Your task to perform on an android device: Open calendar and show me the third week of next month Image 0: 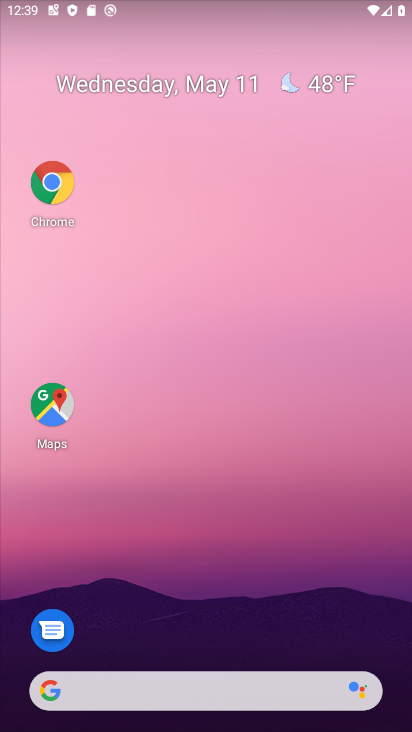
Step 0: drag from (198, 642) to (83, 7)
Your task to perform on an android device: Open calendar and show me the third week of next month Image 1: 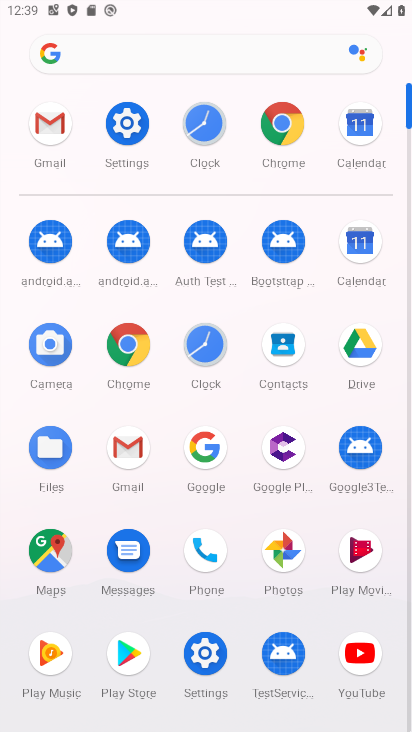
Step 1: click (366, 246)
Your task to perform on an android device: Open calendar and show me the third week of next month Image 2: 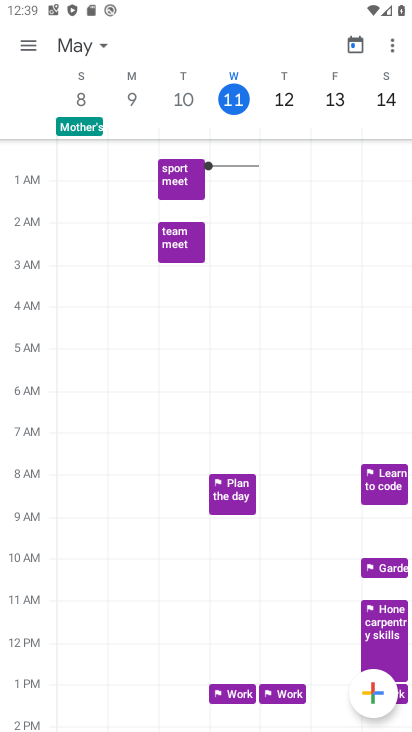
Step 2: task complete